Your task to perform on an android device: toggle location history Image 0: 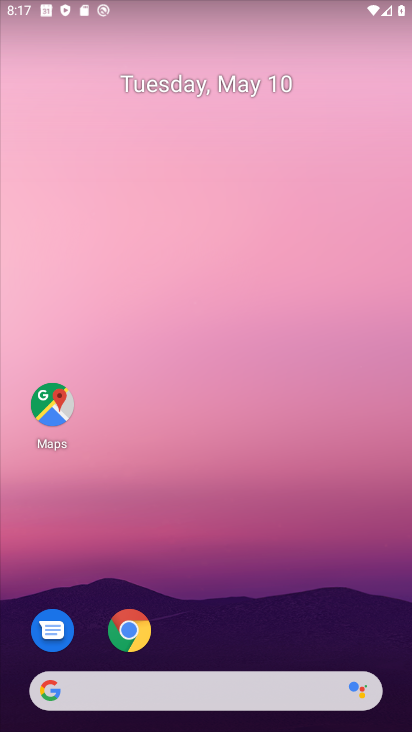
Step 0: click (137, 639)
Your task to perform on an android device: toggle location history Image 1: 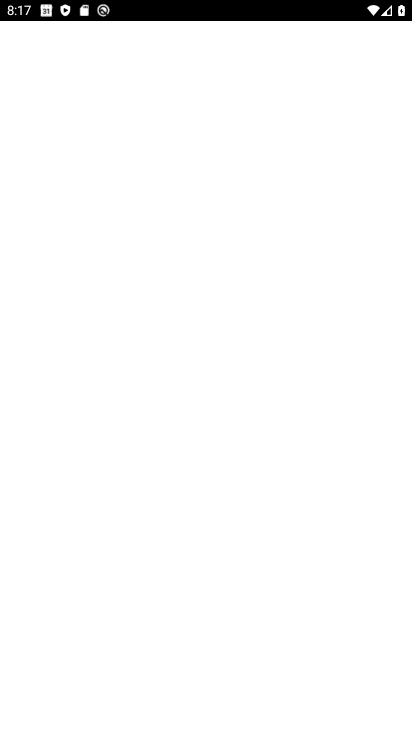
Step 1: press home button
Your task to perform on an android device: toggle location history Image 2: 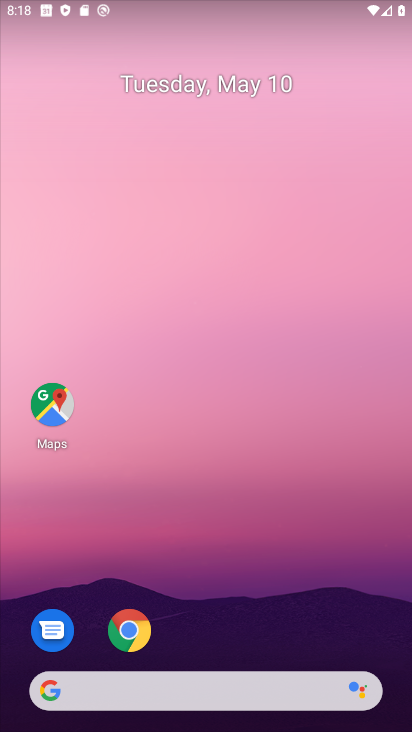
Step 2: click (50, 403)
Your task to perform on an android device: toggle location history Image 3: 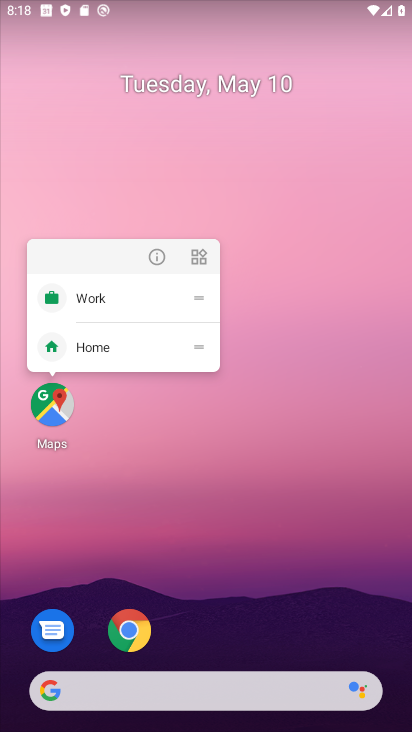
Step 3: click (24, 404)
Your task to perform on an android device: toggle location history Image 4: 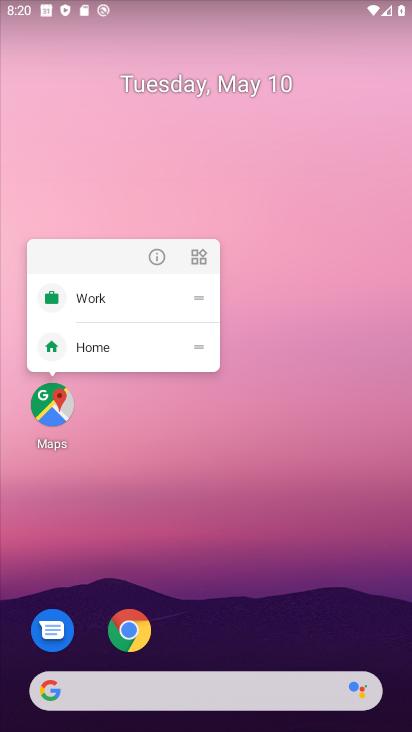
Step 4: click (64, 413)
Your task to perform on an android device: toggle location history Image 5: 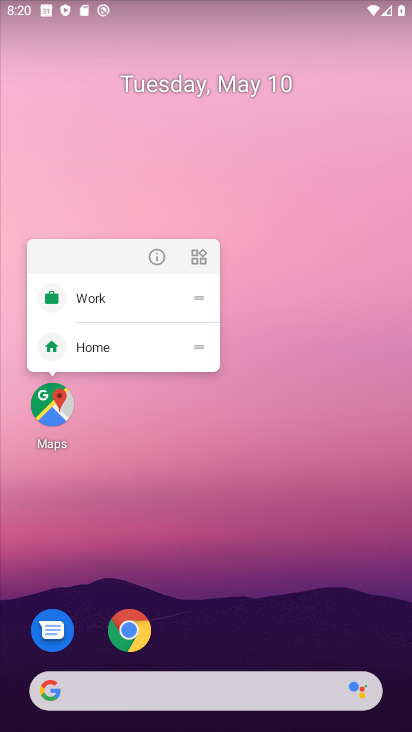
Step 5: click (64, 413)
Your task to perform on an android device: toggle location history Image 6: 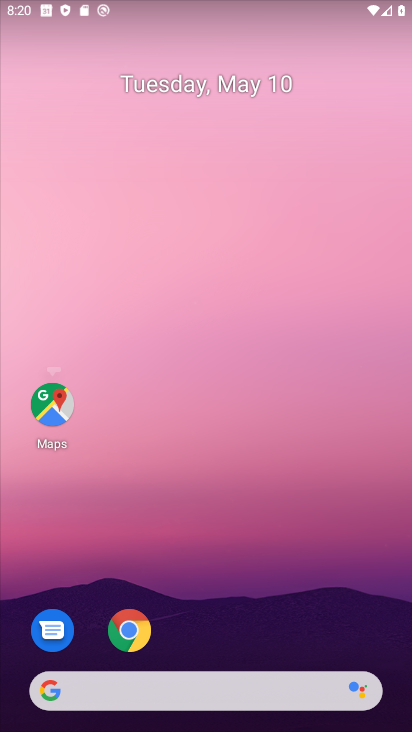
Step 6: click (64, 413)
Your task to perform on an android device: toggle location history Image 7: 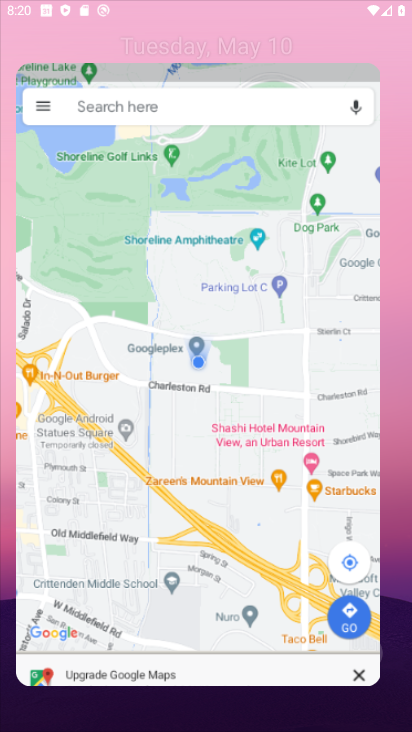
Step 7: click (64, 413)
Your task to perform on an android device: toggle location history Image 8: 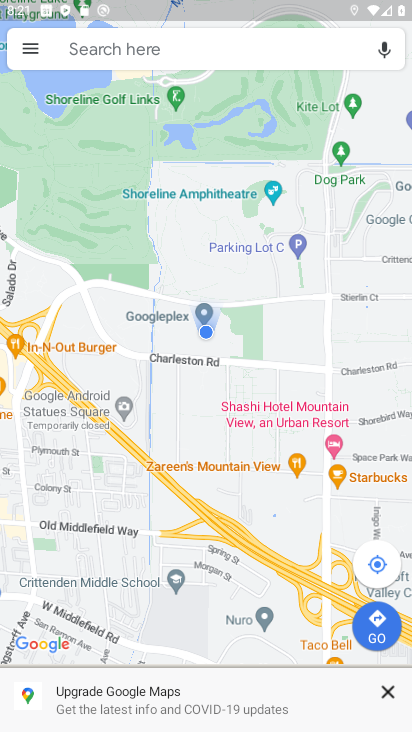
Step 8: click (31, 55)
Your task to perform on an android device: toggle location history Image 9: 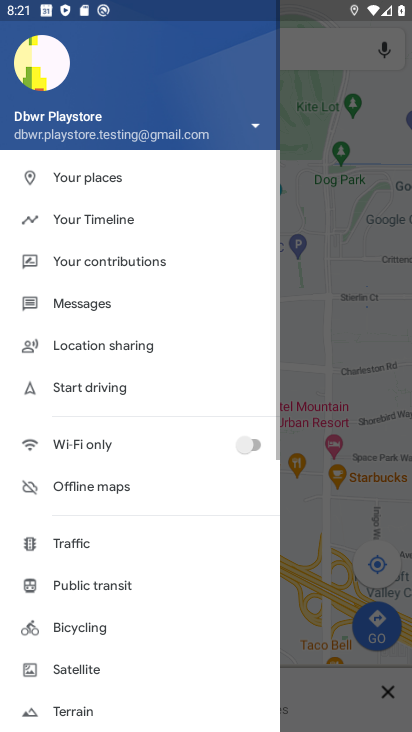
Step 9: drag from (123, 667) to (259, 104)
Your task to perform on an android device: toggle location history Image 10: 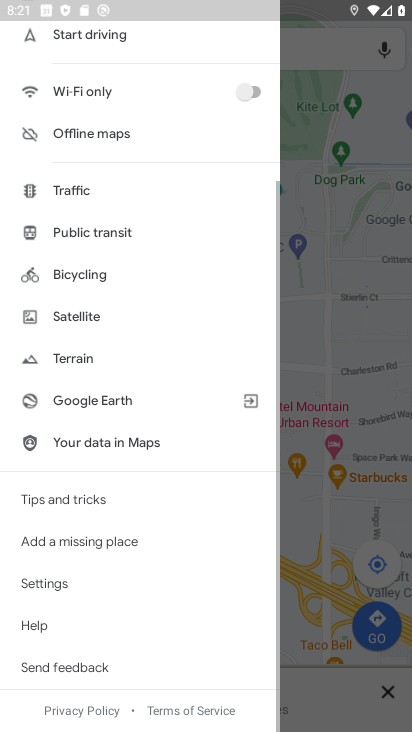
Step 10: click (52, 584)
Your task to perform on an android device: toggle location history Image 11: 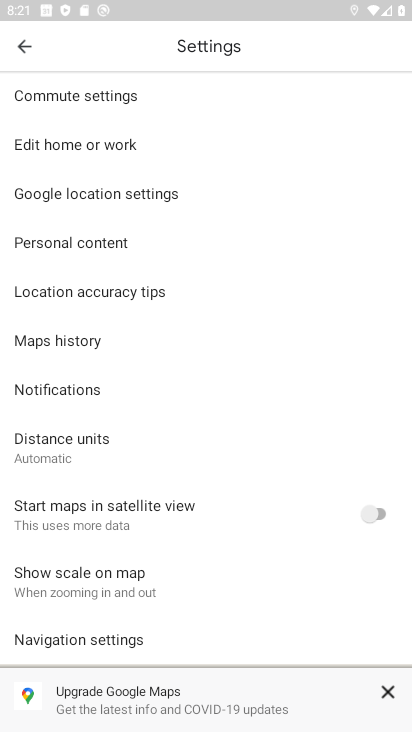
Step 11: click (132, 192)
Your task to perform on an android device: toggle location history Image 12: 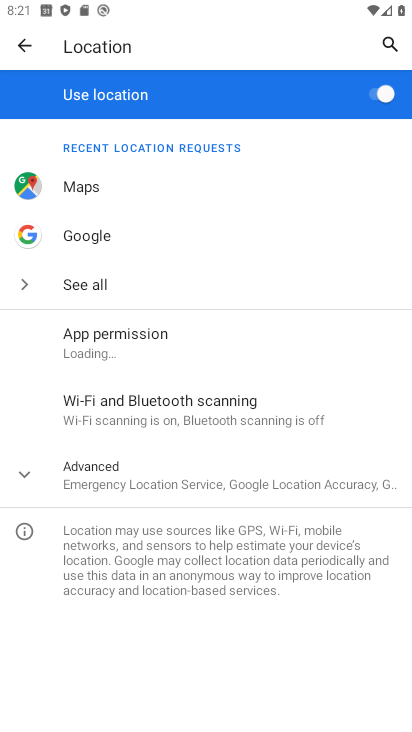
Step 12: click (201, 484)
Your task to perform on an android device: toggle location history Image 13: 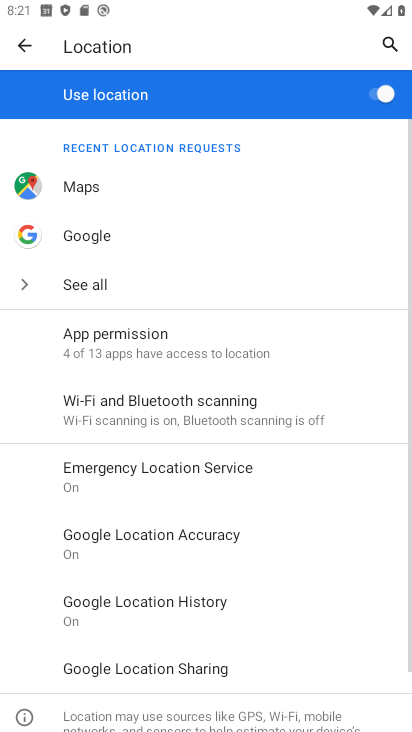
Step 13: click (187, 599)
Your task to perform on an android device: toggle location history Image 14: 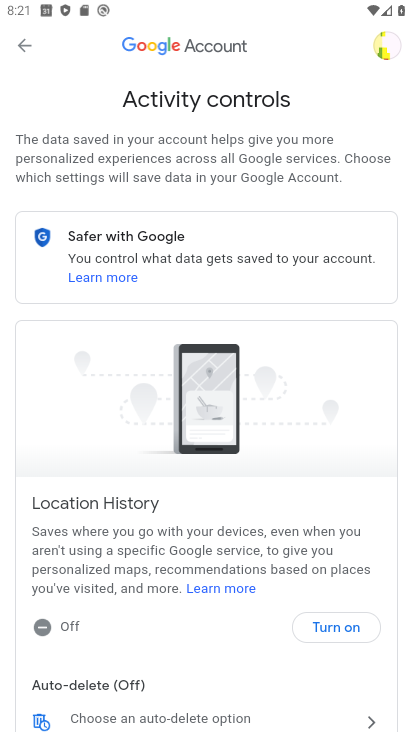
Step 14: click (345, 632)
Your task to perform on an android device: toggle location history Image 15: 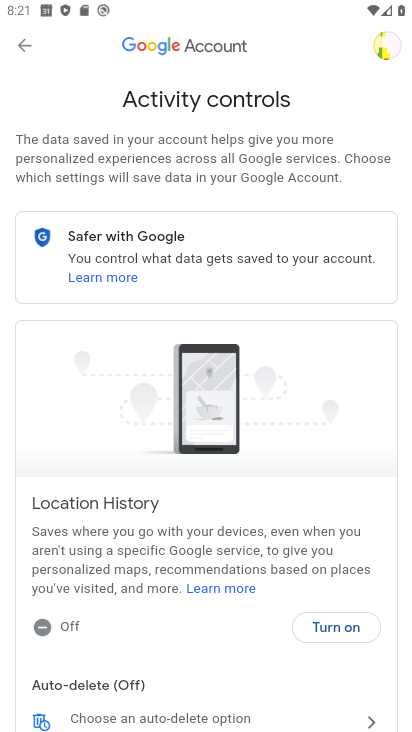
Step 15: drag from (200, 561) to (380, 438)
Your task to perform on an android device: toggle location history Image 16: 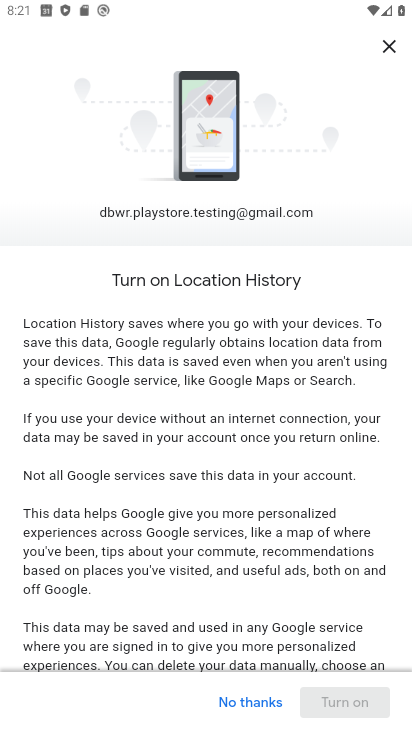
Step 16: drag from (309, 628) to (341, 731)
Your task to perform on an android device: toggle location history Image 17: 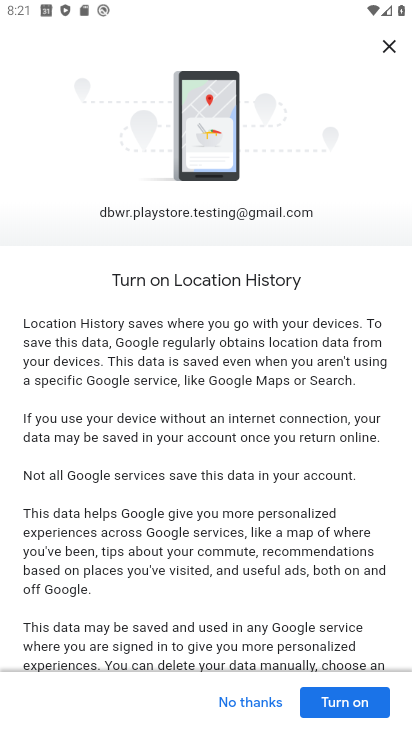
Step 17: click (346, 705)
Your task to perform on an android device: toggle location history Image 18: 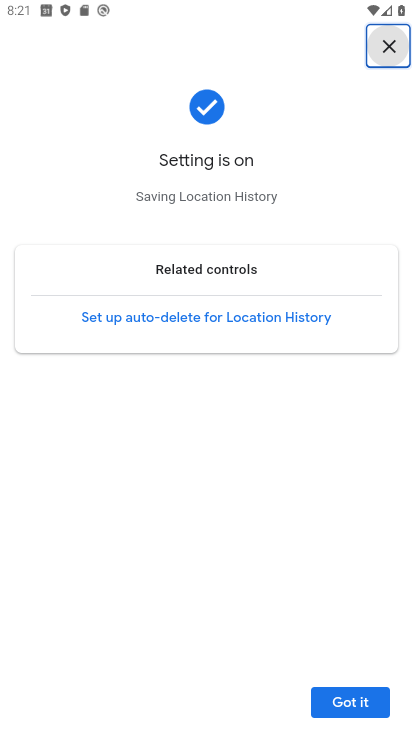
Step 18: click (357, 707)
Your task to perform on an android device: toggle location history Image 19: 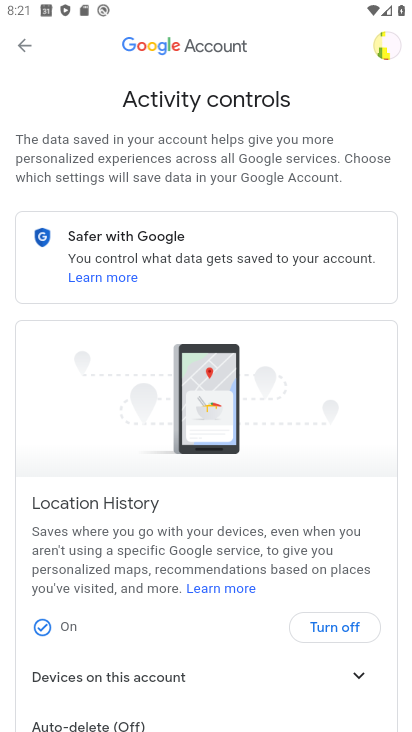
Step 19: task complete